Your task to perform on an android device: Add "bose soundsport free" to the cart on target.com, then select checkout. Image 0: 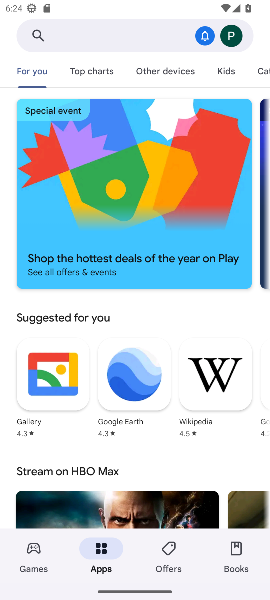
Step 0: press home button
Your task to perform on an android device: Add "bose soundsport free" to the cart on target.com, then select checkout. Image 1: 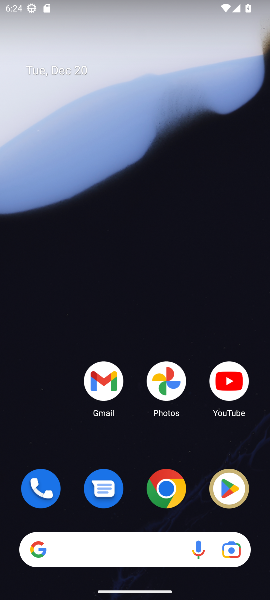
Step 1: drag from (51, 391) to (43, 39)
Your task to perform on an android device: Add "bose soundsport free" to the cart on target.com, then select checkout. Image 2: 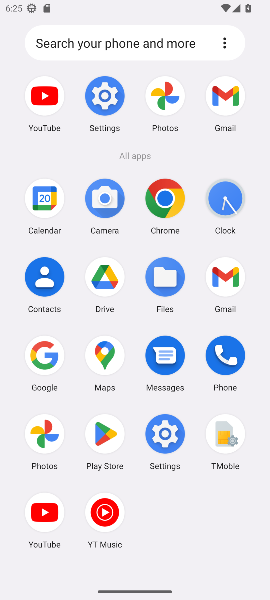
Step 2: click (45, 359)
Your task to perform on an android device: Add "bose soundsport free" to the cart on target.com, then select checkout. Image 3: 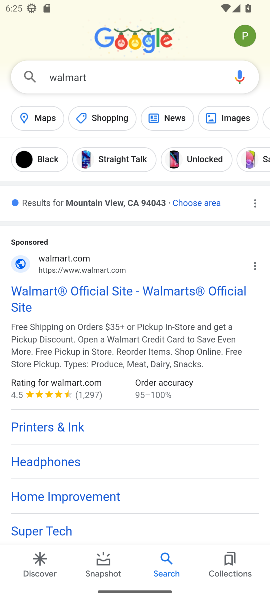
Step 3: click (150, 75)
Your task to perform on an android device: Add "bose soundsport free" to the cart on target.com, then select checkout. Image 4: 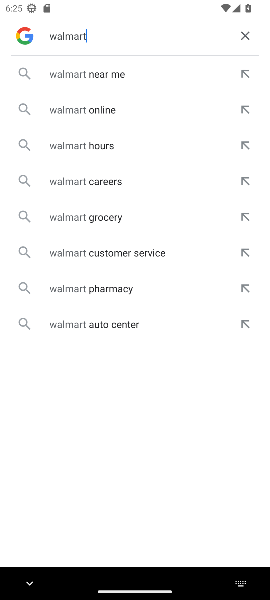
Step 4: click (244, 31)
Your task to perform on an android device: Add "bose soundsport free" to the cart on target.com, then select checkout. Image 5: 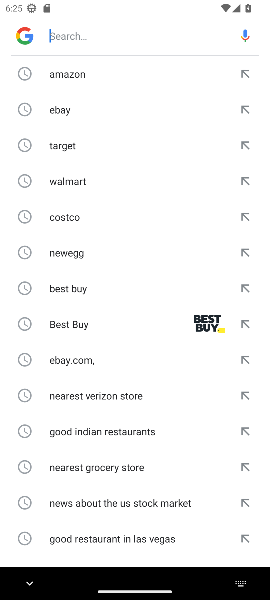
Step 5: type "target.com"
Your task to perform on an android device: Add "bose soundsport free" to the cart on target.com, then select checkout. Image 6: 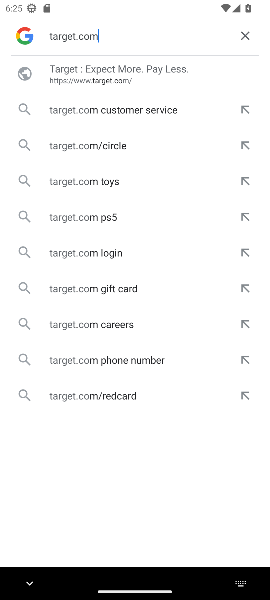
Step 6: press enter
Your task to perform on an android device: Add "bose soundsport free" to the cart on target.com, then select checkout. Image 7: 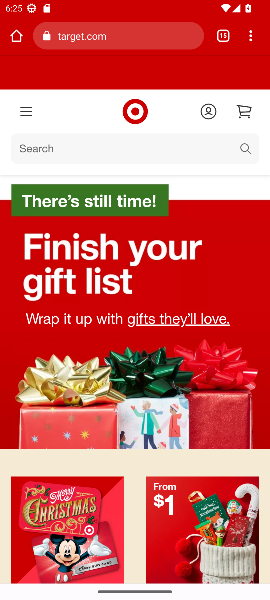
Step 7: click (40, 141)
Your task to perform on an android device: Add "bose soundsport free" to the cart on target.com, then select checkout. Image 8: 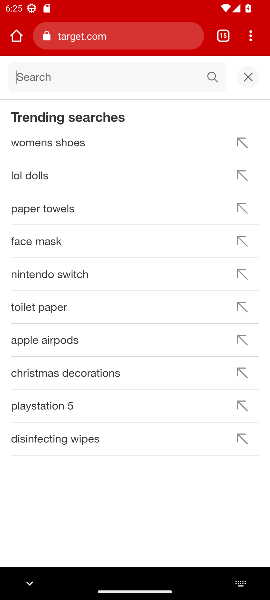
Step 8: type "bose soundsport free"
Your task to perform on an android device: Add "bose soundsport free" to the cart on target.com, then select checkout. Image 9: 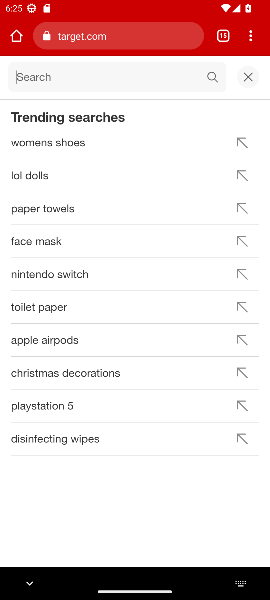
Step 9: press enter
Your task to perform on an android device: Add "bose soundsport free" to the cart on target.com, then select checkout. Image 10: 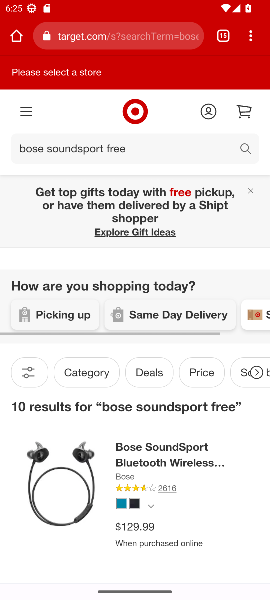
Step 10: task complete